Your task to perform on an android device: Open wifi settings Image 0: 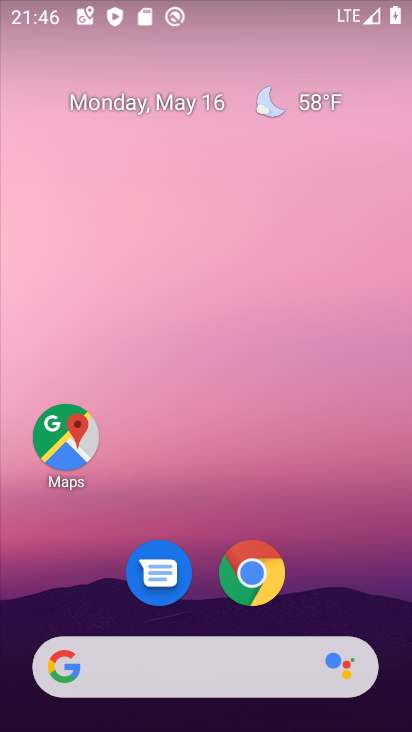
Step 0: drag from (199, 720) to (189, 187)
Your task to perform on an android device: Open wifi settings Image 1: 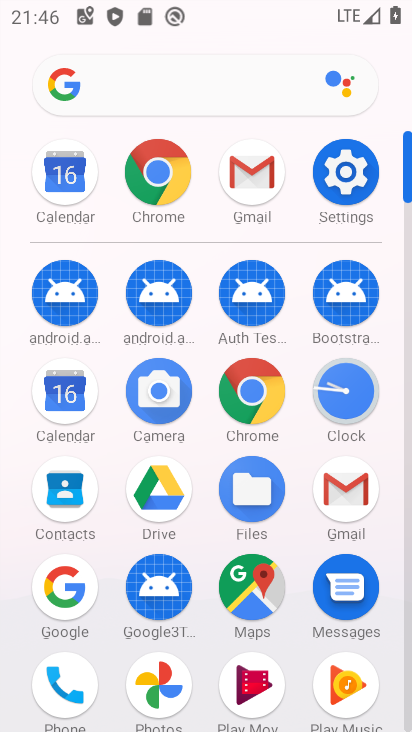
Step 1: click (332, 174)
Your task to perform on an android device: Open wifi settings Image 2: 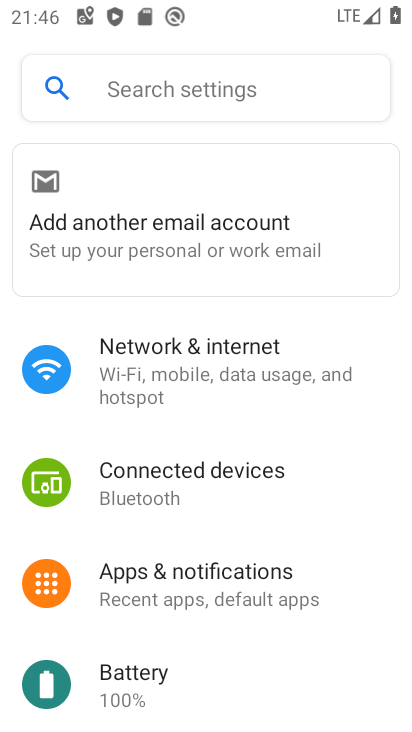
Step 2: click (167, 370)
Your task to perform on an android device: Open wifi settings Image 3: 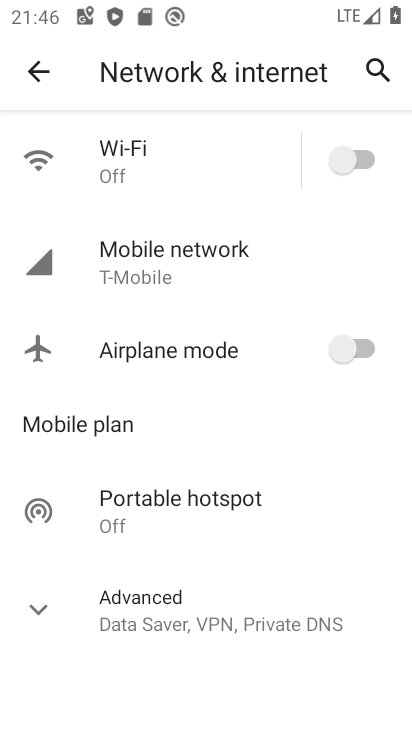
Step 3: click (107, 154)
Your task to perform on an android device: Open wifi settings Image 4: 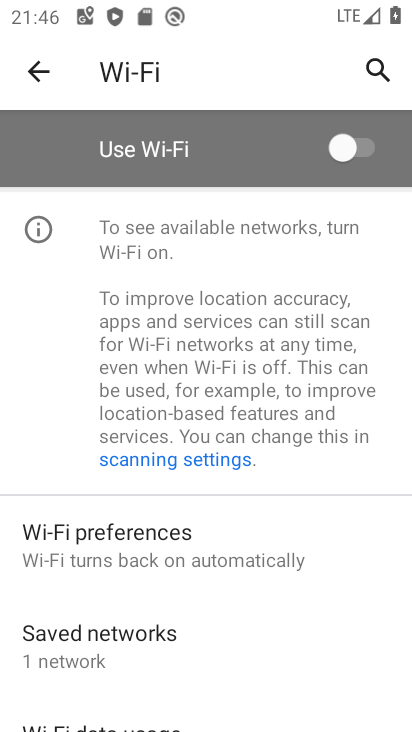
Step 4: task complete